Your task to perform on an android device: Go to Google Image 0: 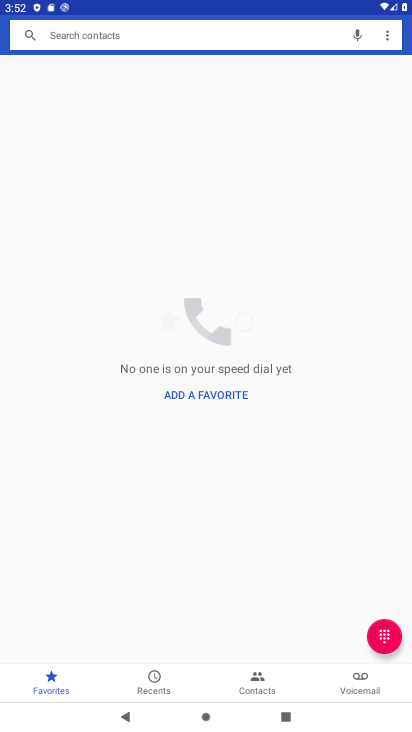
Step 0: press home button
Your task to perform on an android device: Go to Google Image 1: 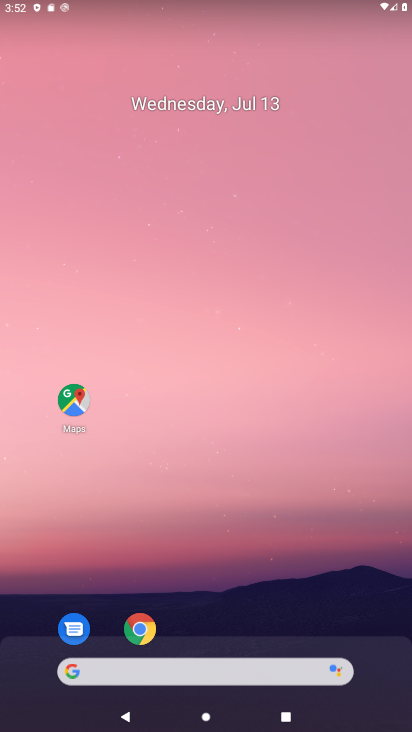
Step 1: drag from (226, 600) to (313, 19)
Your task to perform on an android device: Go to Google Image 2: 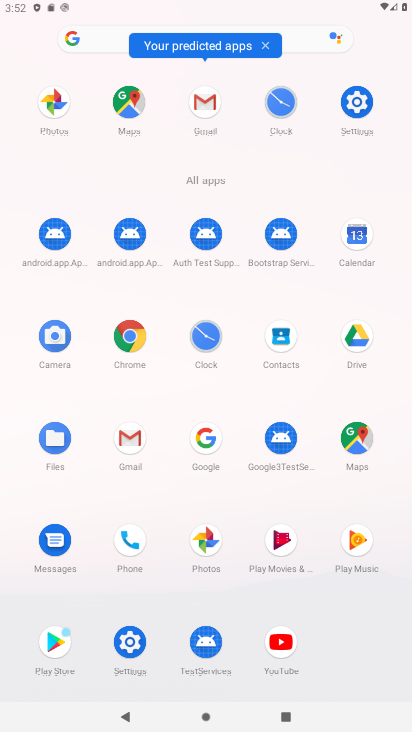
Step 2: click (206, 444)
Your task to perform on an android device: Go to Google Image 3: 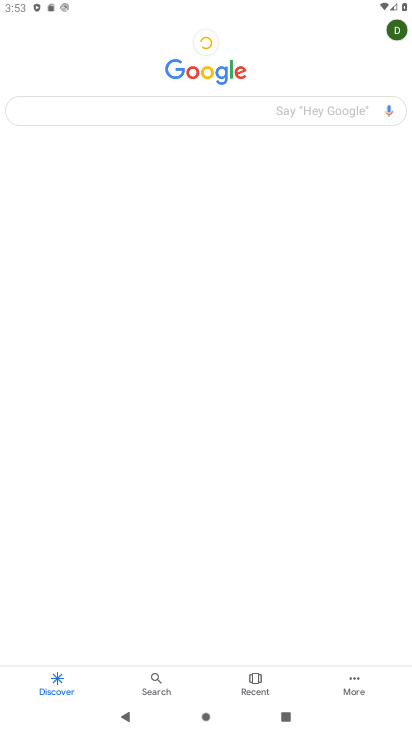
Step 3: task complete